Your task to perform on an android device: turn notification dots on Image 0: 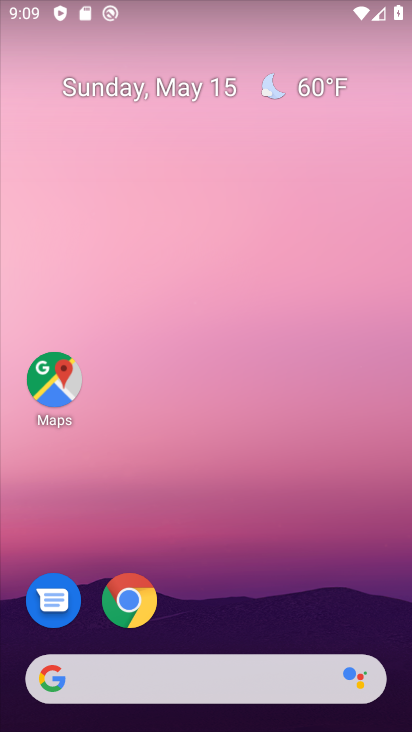
Step 0: drag from (191, 651) to (293, 136)
Your task to perform on an android device: turn notification dots on Image 1: 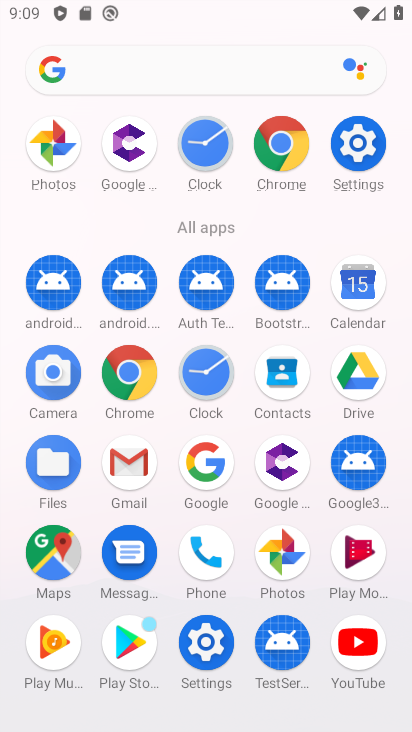
Step 1: click (213, 637)
Your task to perform on an android device: turn notification dots on Image 2: 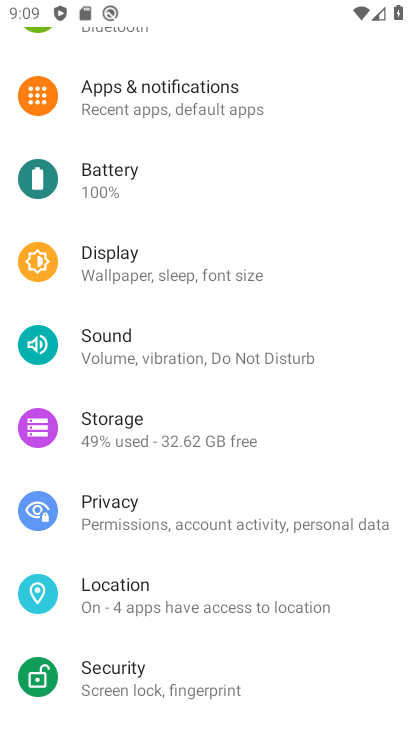
Step 2: click (172, 102)
Your task to perform on an android device: turn notification dots on Image 3: 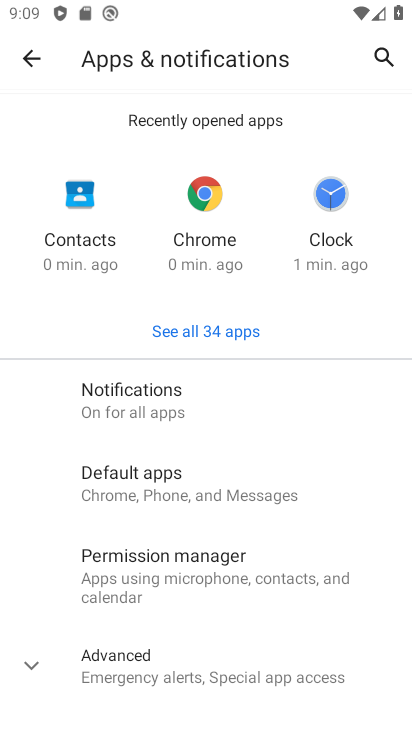
Step 3: click (197, 398)
Your task to perform on an android device: turn notification dots on Image 4: 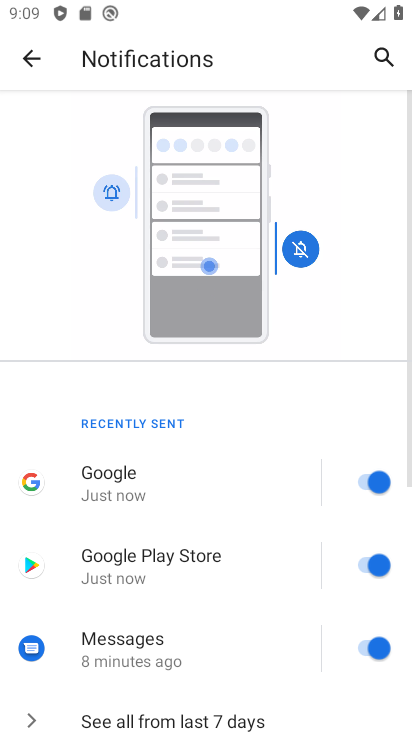
Step 4: drag from (136, 643) to (317, 76)
Your task to perform on an android device: turn notification dots on Image 5: 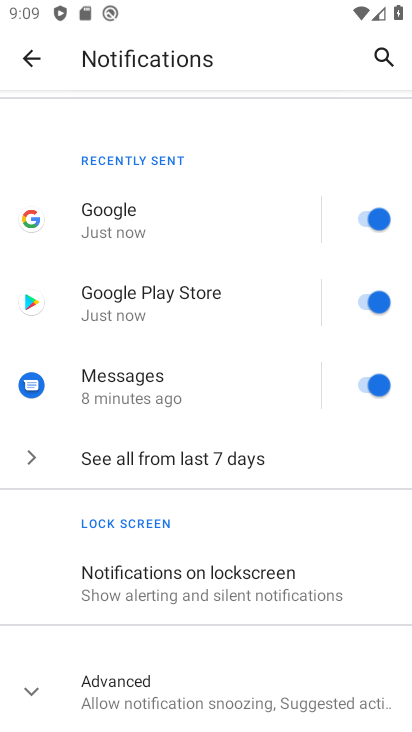
Step 5: drag from (219, 662) to (265, 410)
Your task to perform on an android device: turn notification dots on Image 6: 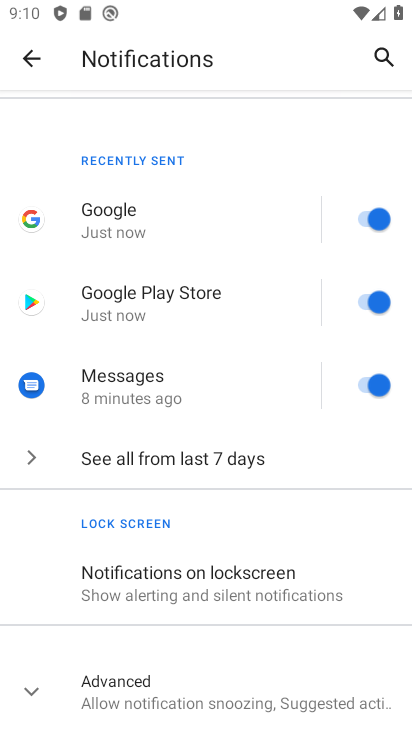
Step 6: click (163, 699)
Your task to perform on an android device: turn notification dots on Image 7: 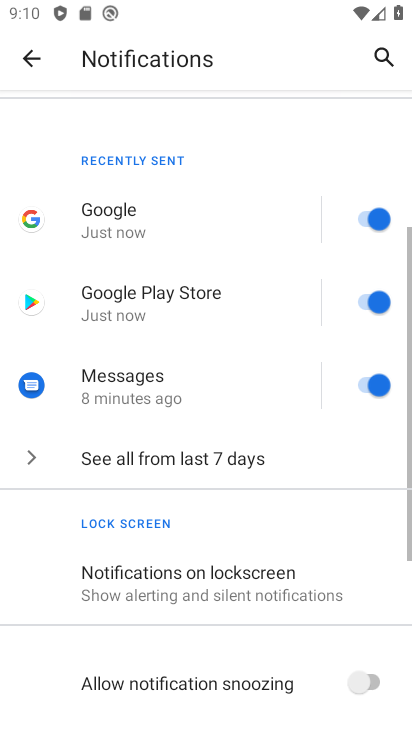
Step 7: task complete